Your task to perform on an android device: turn off location history Image 0: 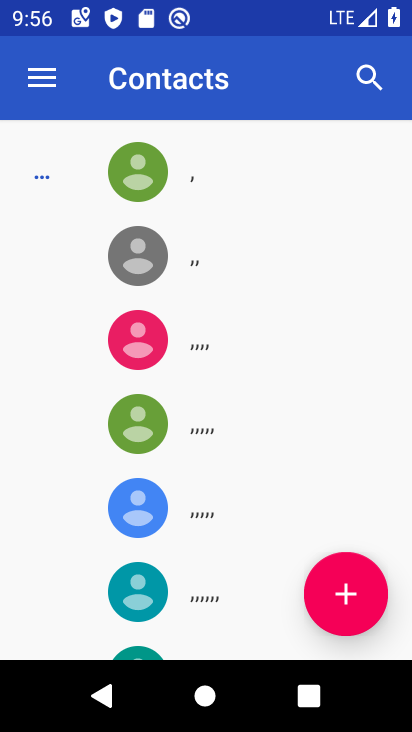
Step 0: press home button
Your task to perform on an android device: turn off location history Image 1: 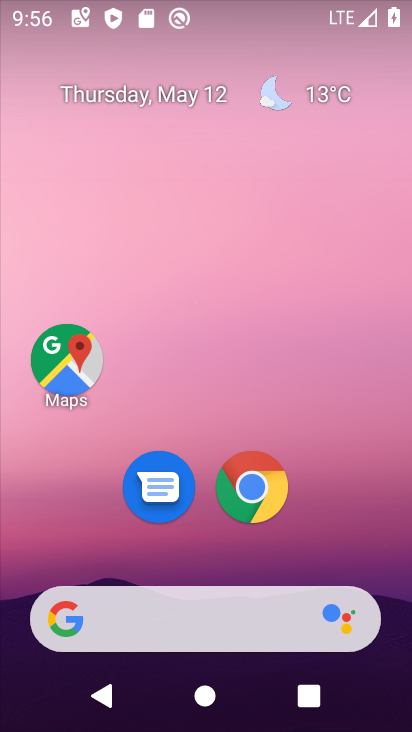
Step 1: click (68, 342)
Your task to perform on an android device: turn off location history Image 2: 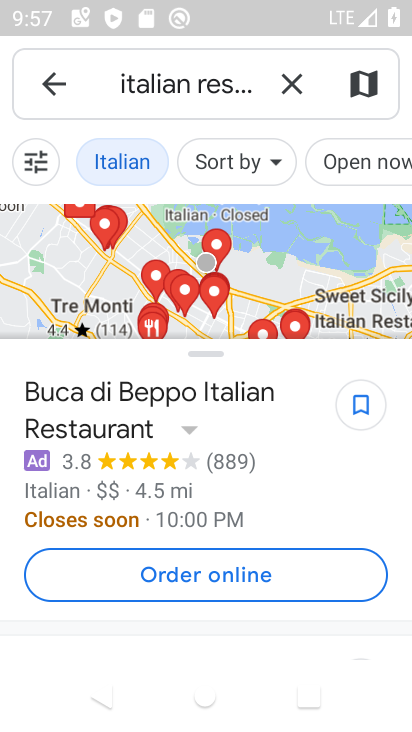
Step 2: click (298, 82)
Your task to perform on an android device: turn off location history Image 3: 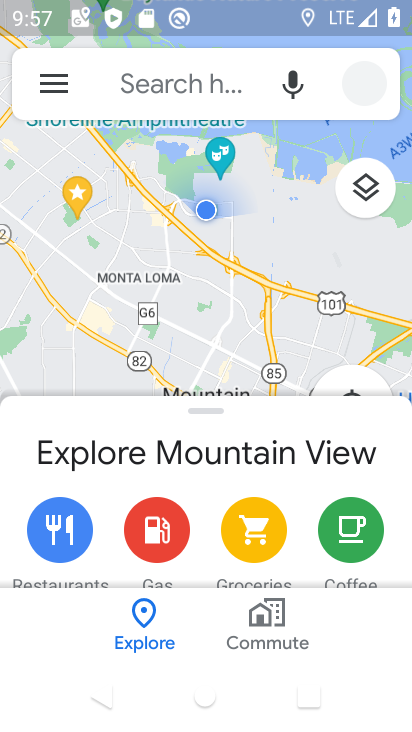
Step 3: click (49, 81)
Your task to perform on an android device: turn off location history Image 4: 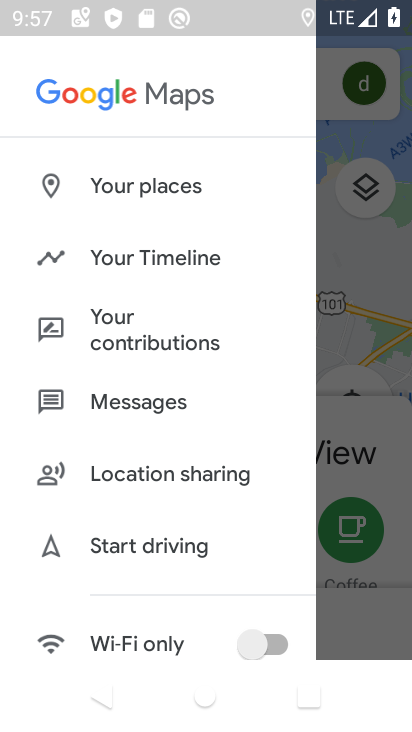
Step 4: click (142, 266)
Your task to perform on an android device: turn off location history Image 5: 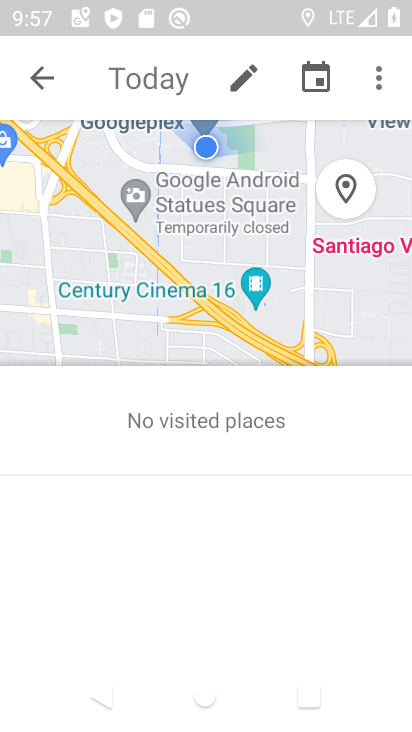
Step 5: click (377, 81)
Your task to perform on an android device: turn off location history Image 6: 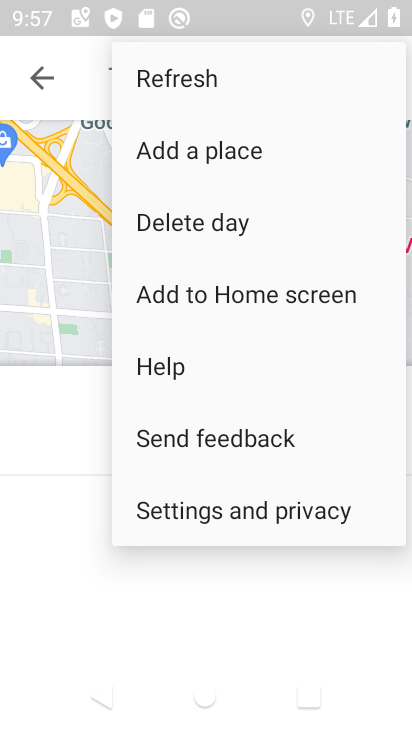
Step 6: click (209, 513)
Your task to perform on an android device: turn off location history Image 7: 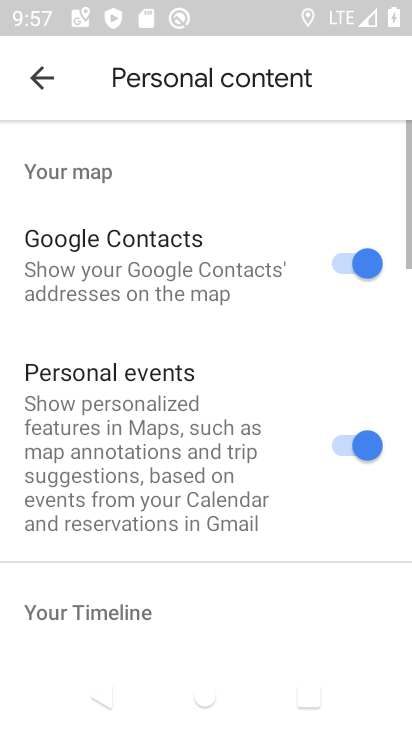
Step 7: drag from (209, 513) to (193, 40)
Your task to perform on an android device: turn off location history Image 8: 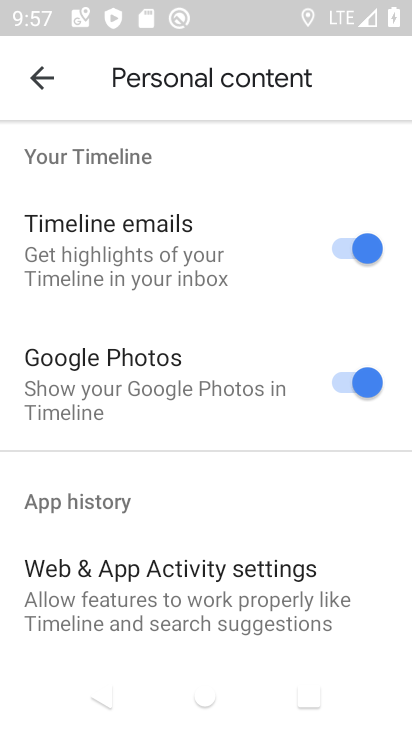
Step 8: drag from (136, 457) to (150, 83)
Your task to perform on an android device: turn off location history Image 9: 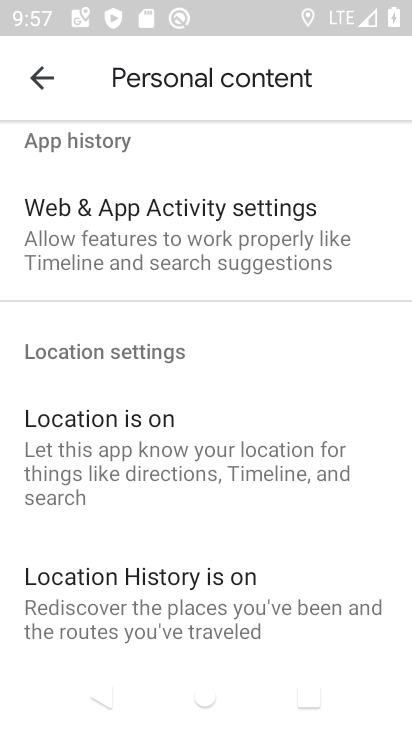
Step 9: drag from (185, 517) to (168, 98)
Your task to perform on an android device: turn off location history Image 10: 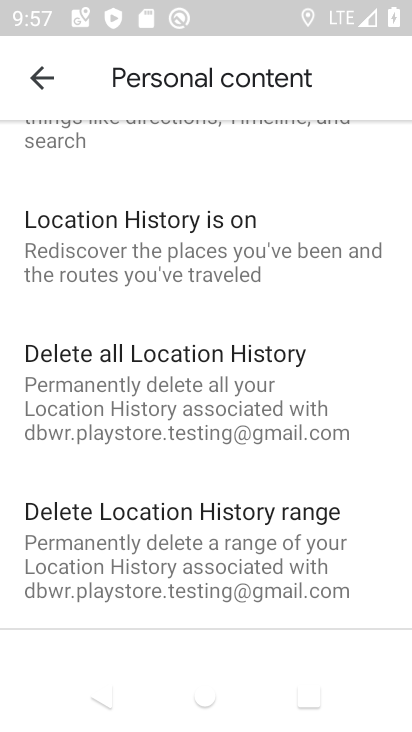
Step 10: click (131, 236)
Your task to perform on an android device: turn off location history Image 11: 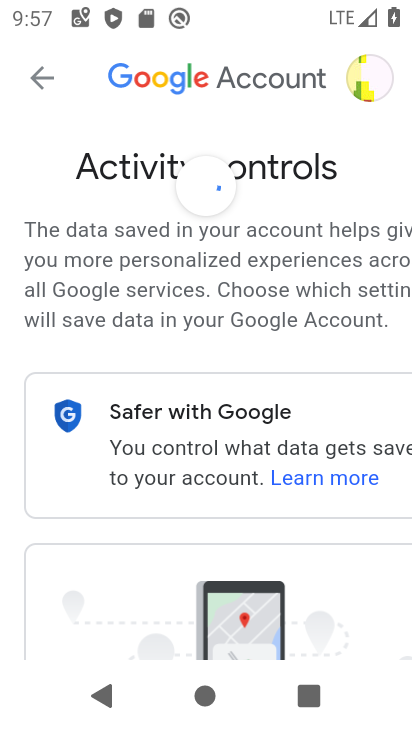
Step 11: drag from (232, 566) to (156, 9)
Your task to perform on an android device: turn off location history Image 12: 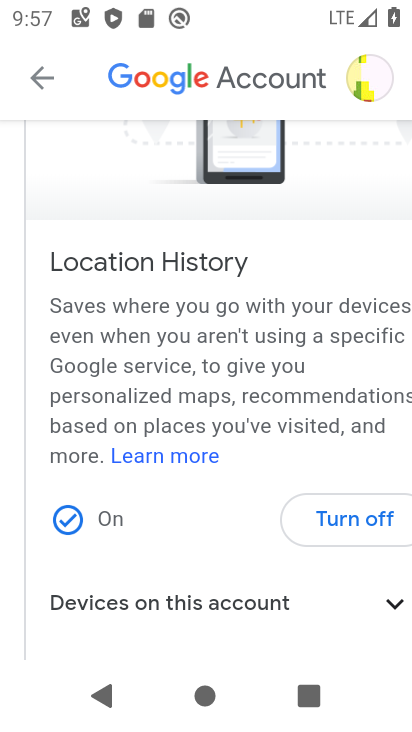
Step 12: click (348, 532)
Your task to perform on an android device: turn off location history Image 13: 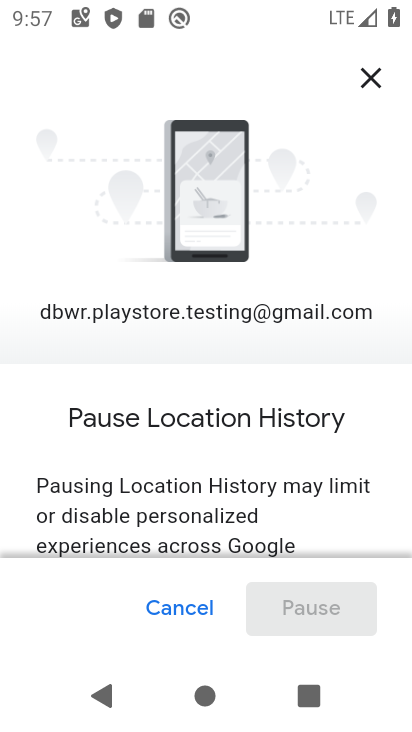
Step 13: drag from (213, 466) to (169, 0)
Your task to perform on an android device: turn off location history Image 14: 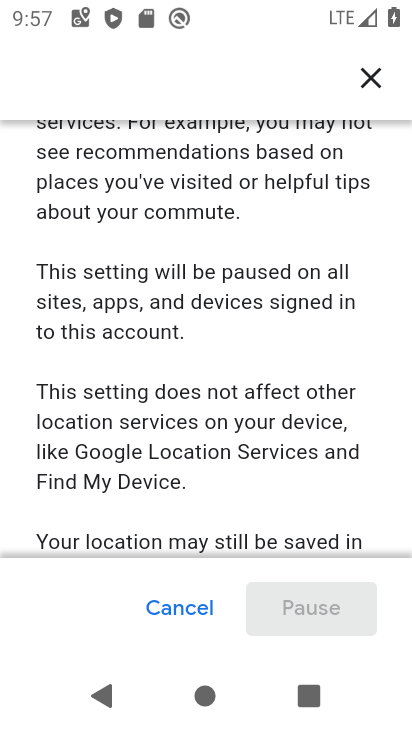
Step 14: drag from (182, 482) to (180, 38)
Your task to perform on an android device: turn off location history Image 15: 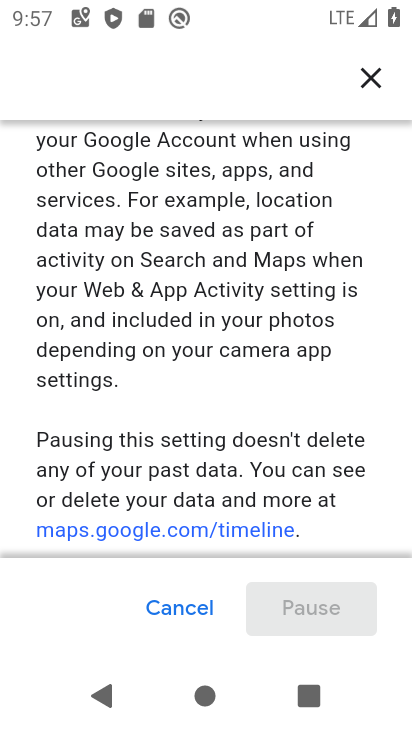
Step 15: drag from (227, 441) to (211, 0)
Your task to perform on an android device: turn off location history Image 16: 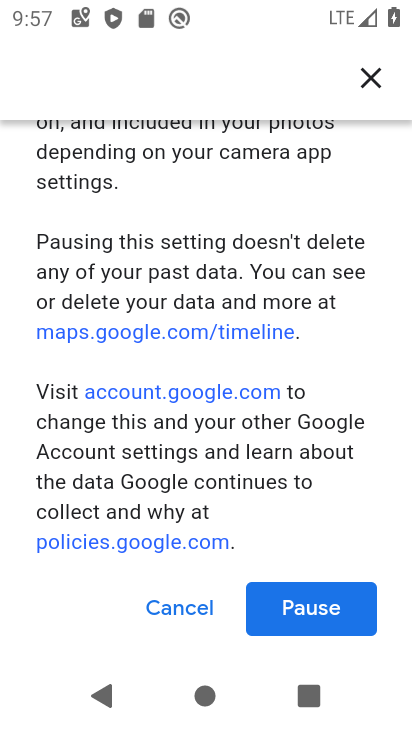
Step 16: click (308, 615)
Your task to perform on an android device: turn off location history Image 17: 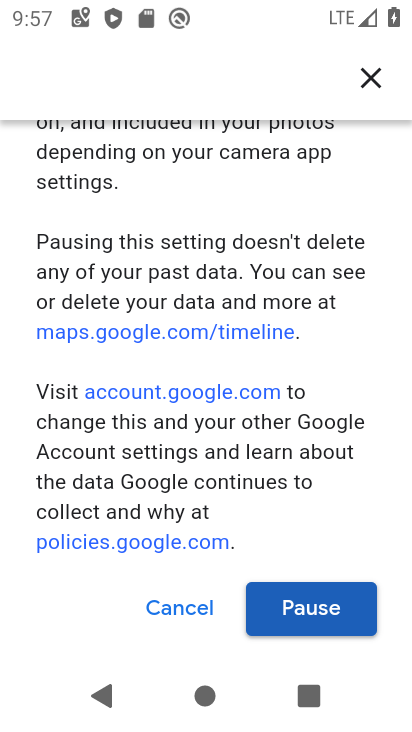
Step 17: drag from (156, 460) to (162, 284)
Your task to perform on an android device: turn off location history Image 18: 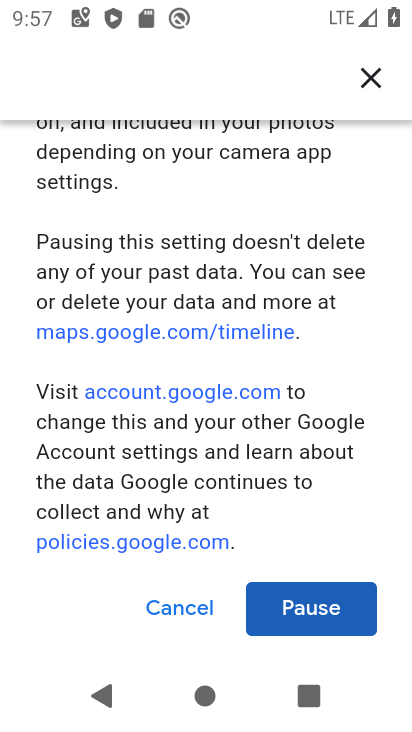
Step 18: click (307, 608)
Your task to perform on an android device: turn off location history Image 19: 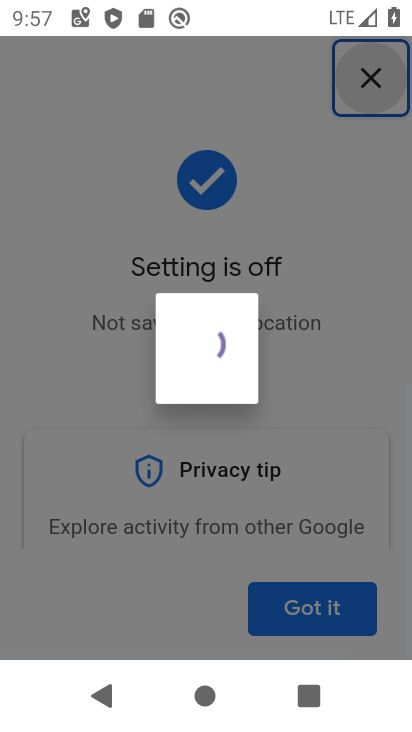
Step 19: click (315, 613)
Your task to perform on an android device: turn off location history Image 20: 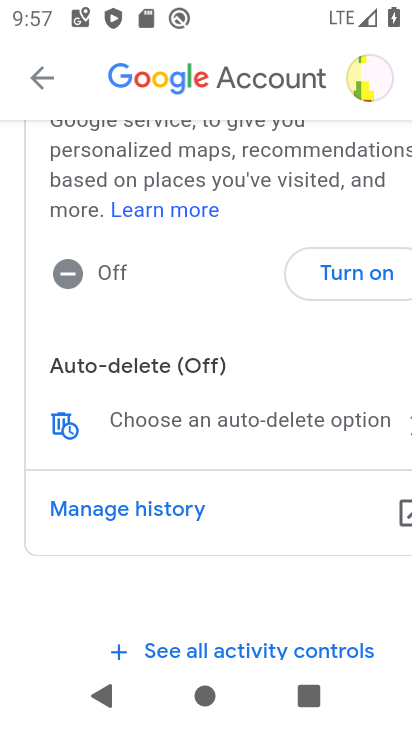
Step 20: task complete